Your task to perform on an android device: Search for sushi restaurants on Maps Image 0: 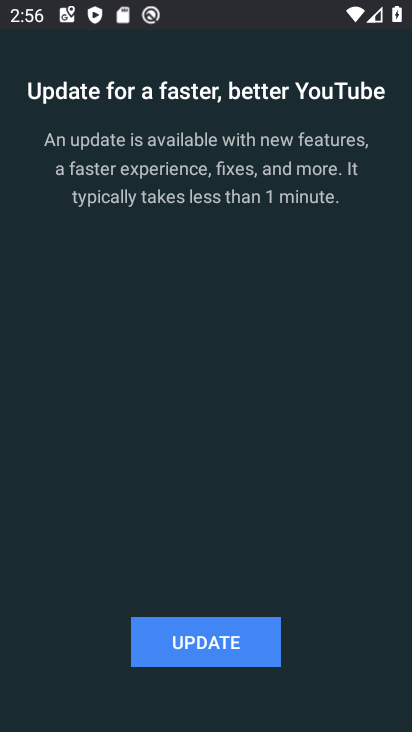
Step 0: press home button
Your task to perform on an android device: Search for sushi restaurants on Maps Image 1: 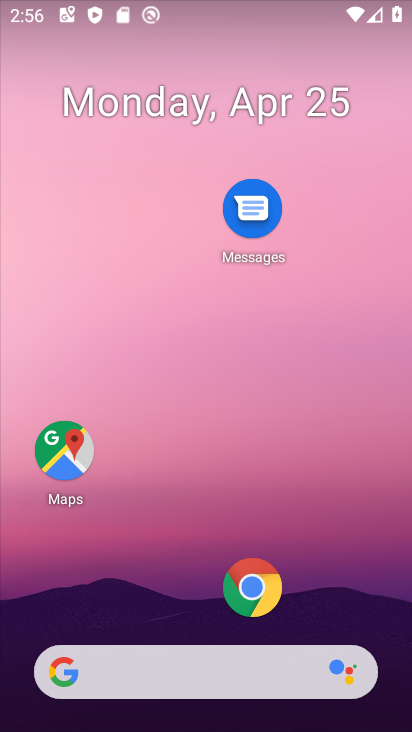
Step 1: click (90, 472)
Your task to perform on an android device: Search for sushi restaurants on Maps Image 2: 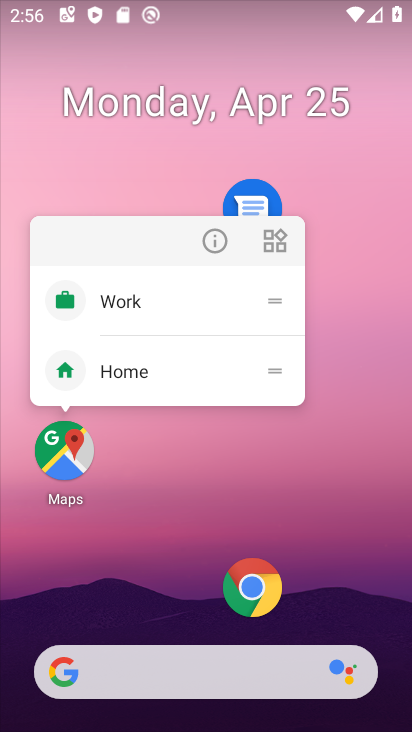
Step 2: click (209, 237)
Your task to perform on an android device: Search for sushi restaurants on Maps Image 3: 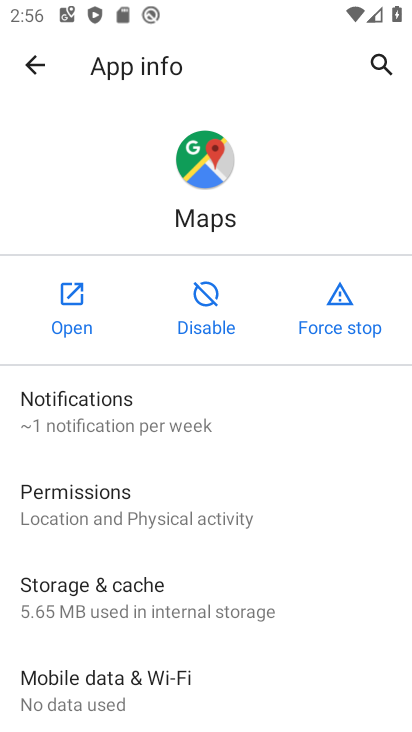
Step 3: click (59, 342)
Your task to perform on an android device: Search for sushi restaurants on Maps Image 4: 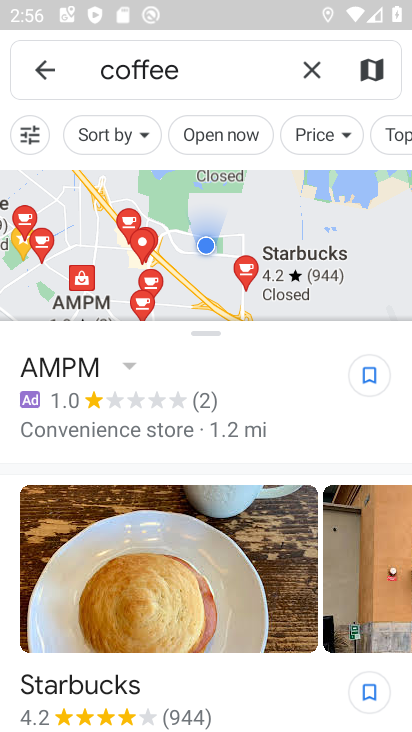
Step 4: click (311, 69)
Your task to perform on an android device: Search for sushi restaurants on Maps Image 5: 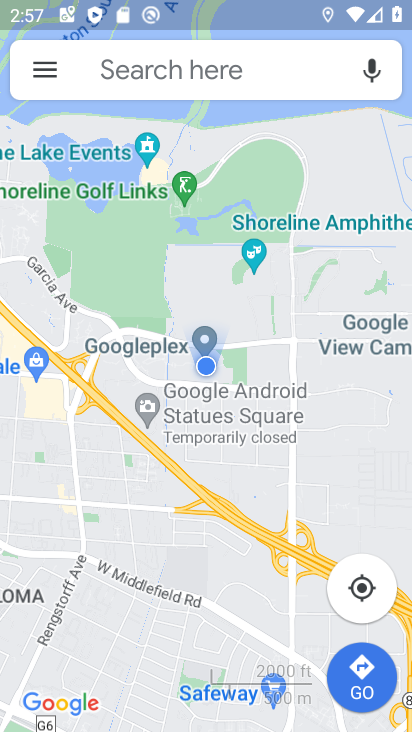
Step 5: click (239, 87)
Your task to perform on an android device: Search for sushi restaurants on Maps Image 6: 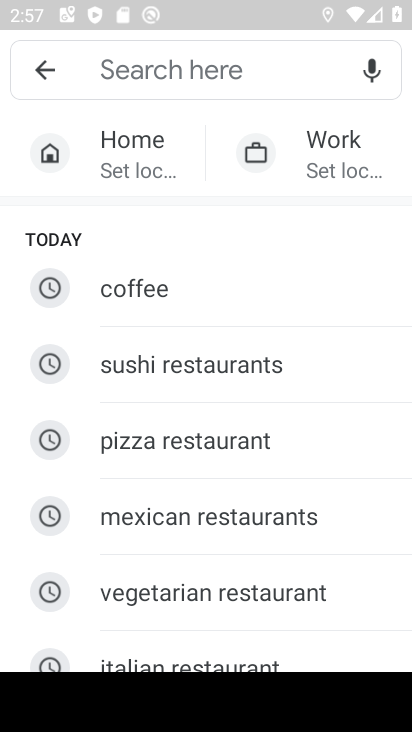
Step 6: click (279, 362)
Your task to perform on an android device: Search for sushi restaurants on Maps Image 7: 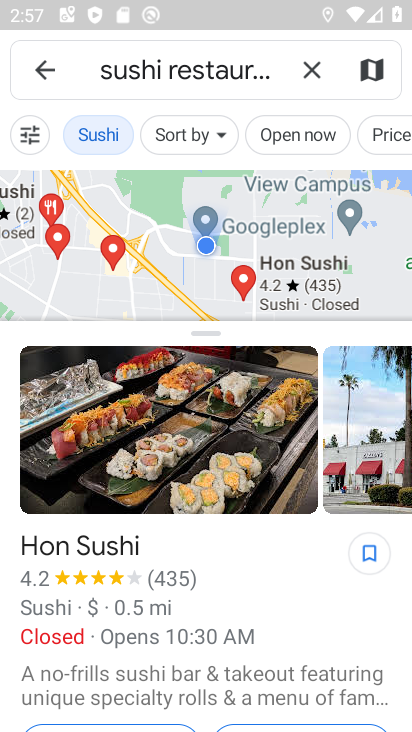
Step 7: task complete